Your task to perform on an android device: open chrome and create a bookmark for the current page Image 0: 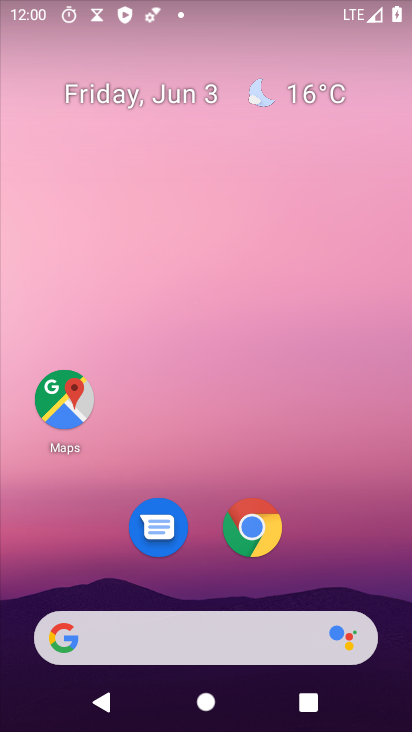
Step 0: click (250, 540)
Your task to perform on an android device: open chrome and create a bookmark for the current page Image 1: 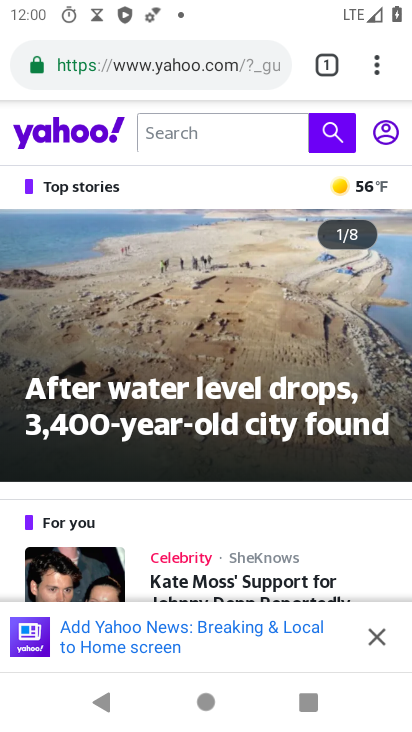
Step 1: task complete